Your task to perform on an android device: Do I have any events today? Image 0: 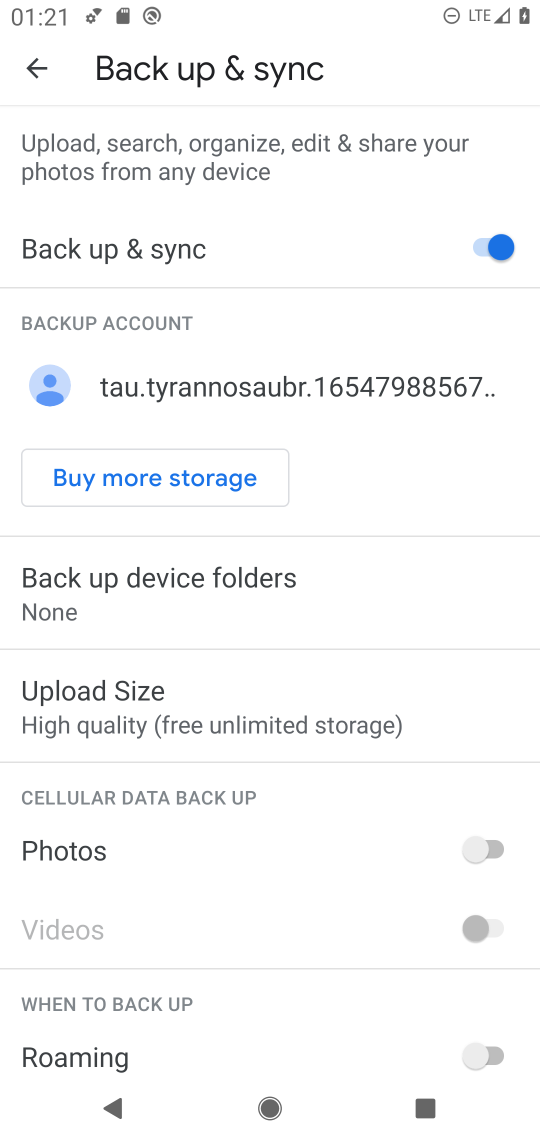
Step 0: press home button
Your task to perform on an android device: Do I have any events today? Image 1: 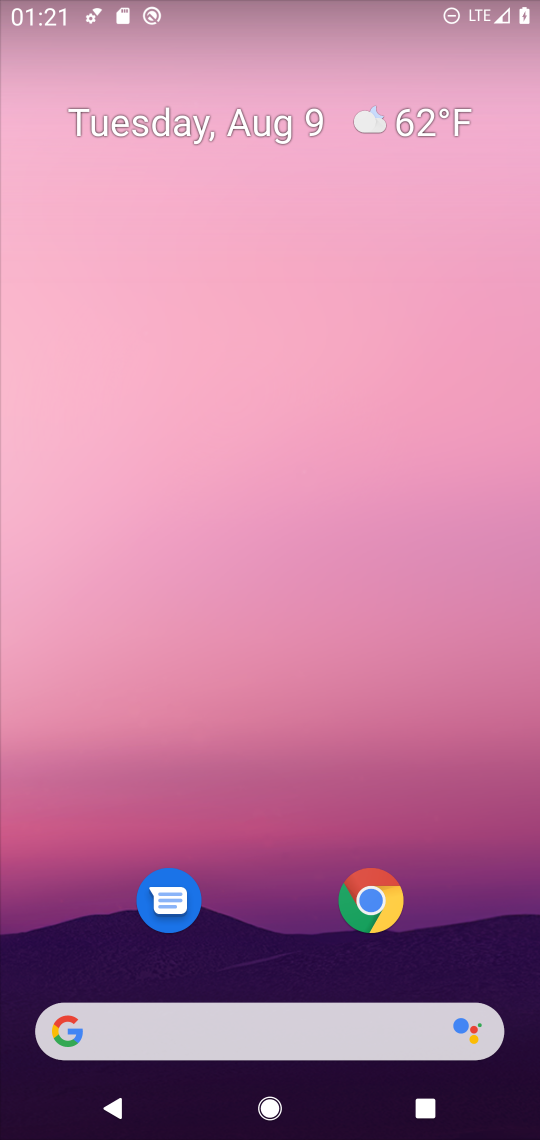
Step 1: drag from (262, 919) to (293, 83)
Your task to perform on an android device: Do I have any events today? Image 2: 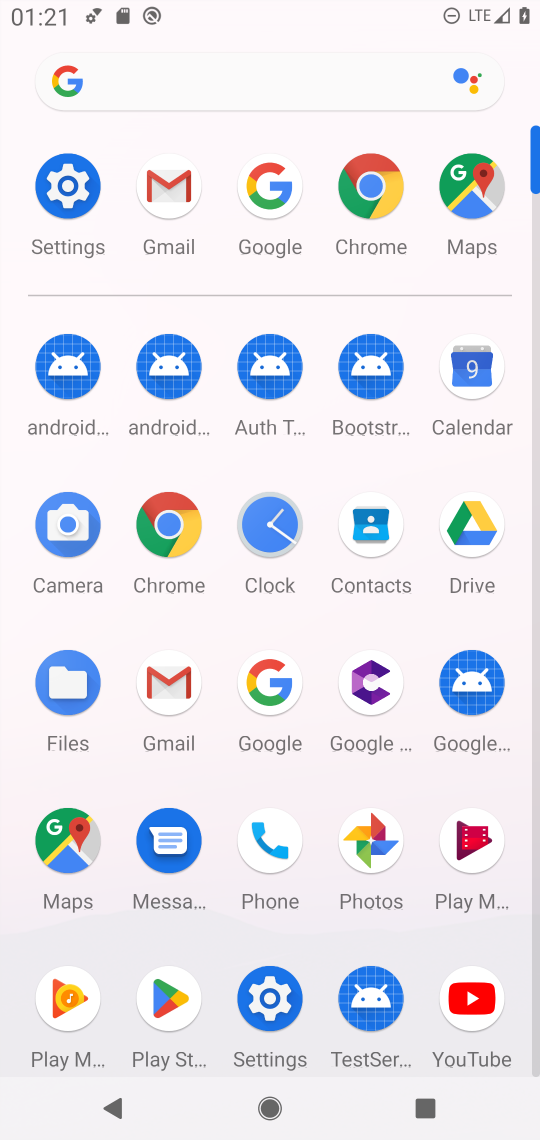
Step 2: click (480, 364)
Your task to perform on an android device: Do I have any events today? Image 3: 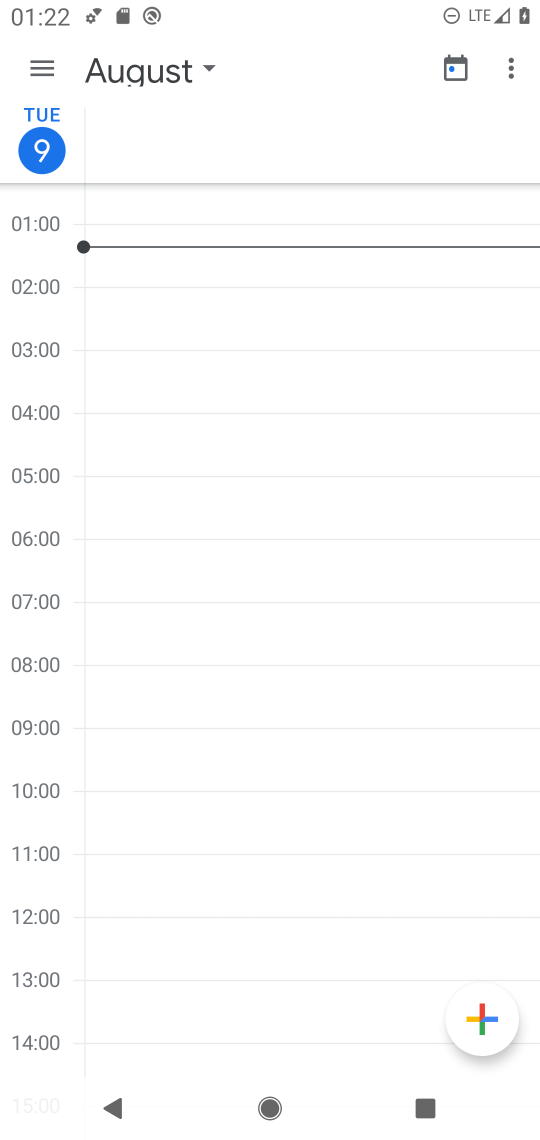
Step 3: click (36, 66)
Your task to perform on an android device: Do I have any events today? Image 4: 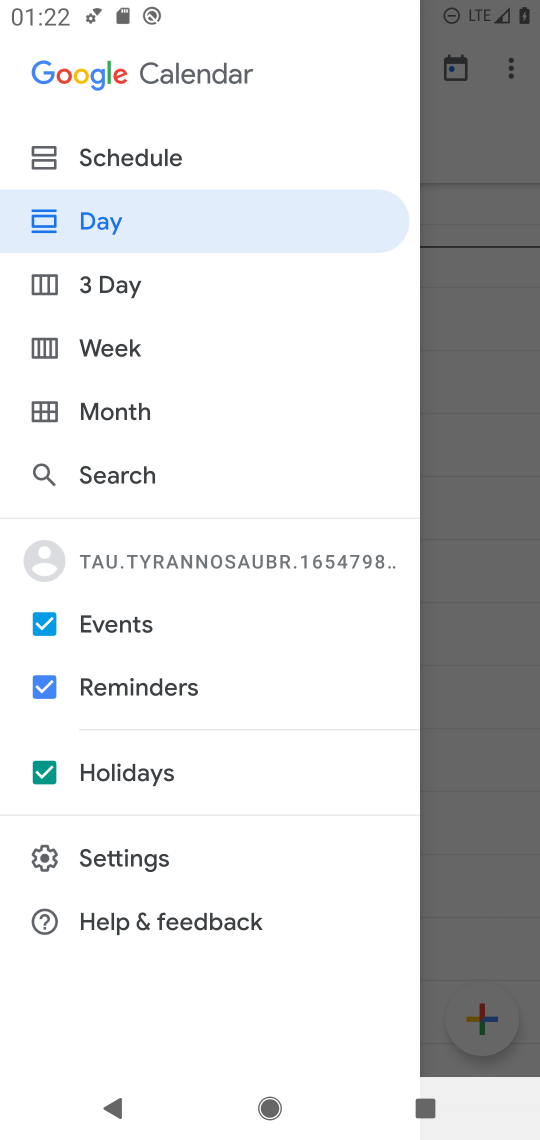
Step 4: click (191, 151)
Your task to perform on an android device: Do I have any events today? Image 5: 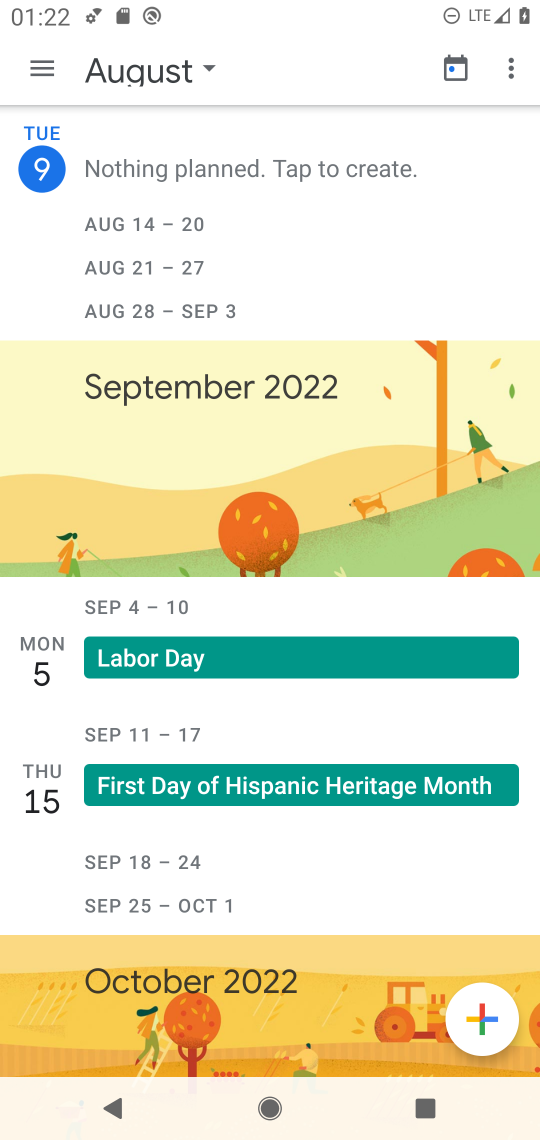
Step 5: task complete